Your task to perform on an android device: What's the weather going to be this weekend? Image 0: 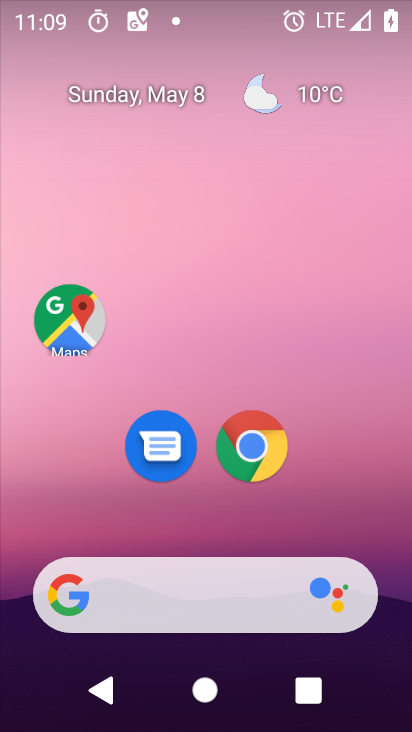
Step 0: click (313, 90)
Your task to perform on an android device: What's the weather going to be this weekend? Image 1: 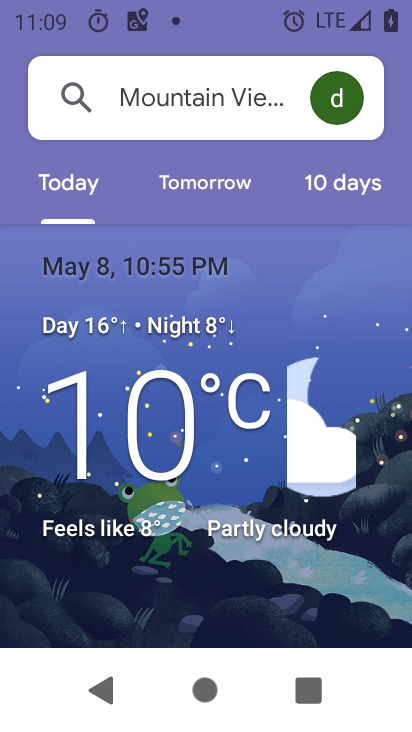
Step 1: click (355, 193)
Your task to perform on an android device: What's the weather going to be this weekend? Image 2: 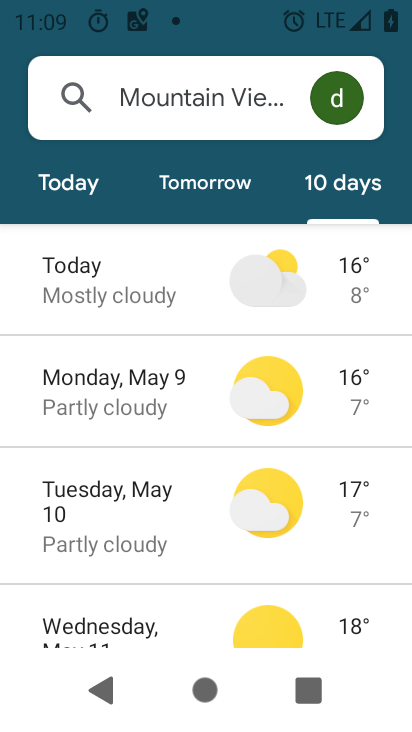
Step 2: task complete